Your task to perform on an android device: What is the news today? Image 0: 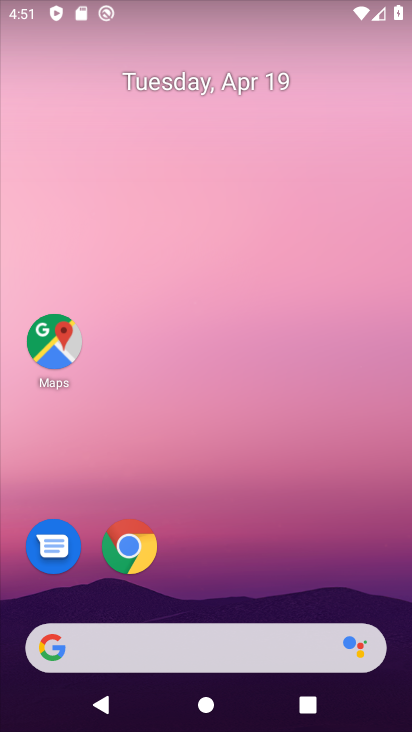
Step 0: drag from (299, 442) to (277, 4)
Your task to perform on an android device: What is the news today? Image 1: 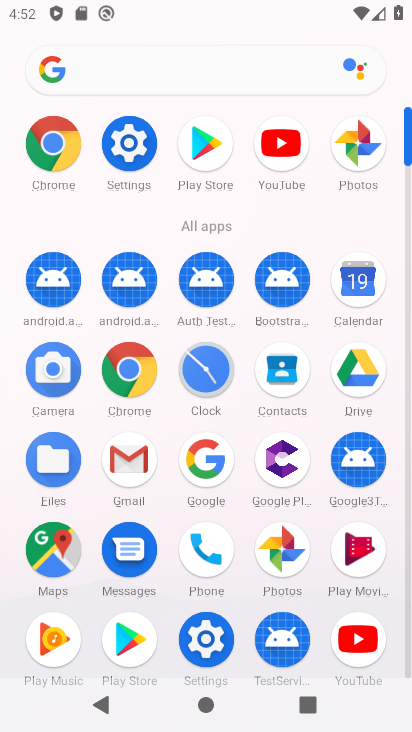
Step 1: click (51, 136)
Your task to perform on an android device: What is the news today? Image 2: 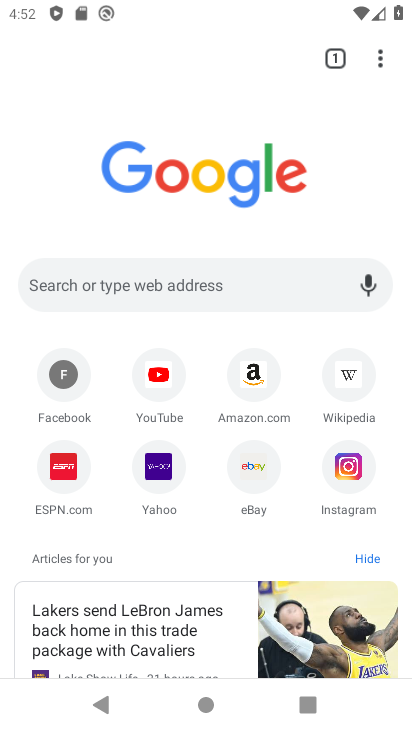
Step 2: task complete